Your task to perform on an android device: make emails show in primary in the gmail app Image 0: 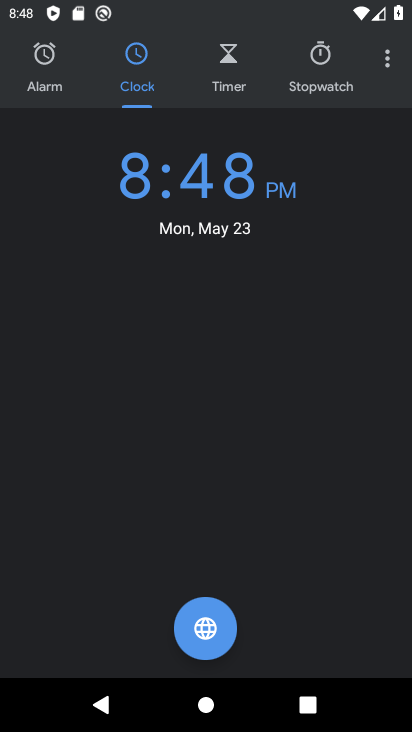
Step 0: press home button
Your task to perform on an android device: make emails show in primary in the gmail app Image 1: 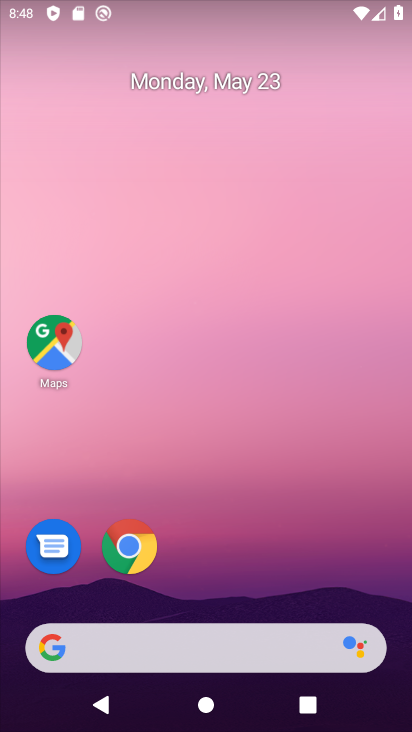
Step 1: drag from (369, 575) to (328, 219)
Your task to perform on an android device: make emails show in primary in the gmail app Image 2: 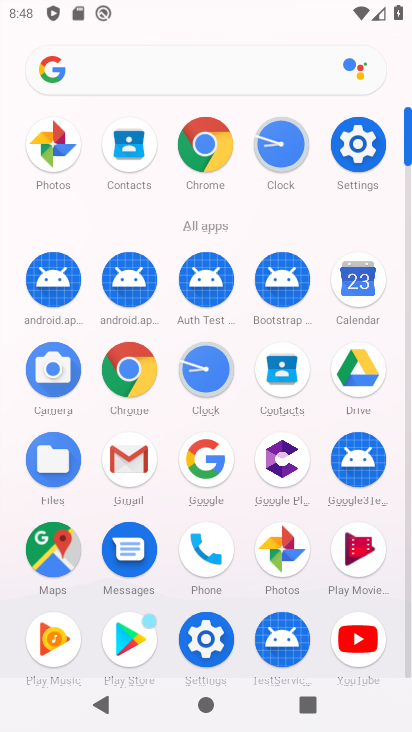
Step 2: click (210, 371)
Your task to perform on an android device: make emails show in primary in the gmail app Image 3: 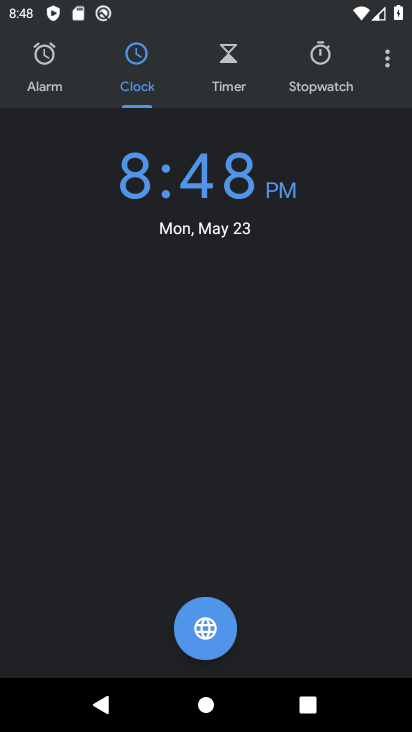
Step 3: press home button
Your task to perform on an android device: make emails show in primary in the gmail app Image 4: 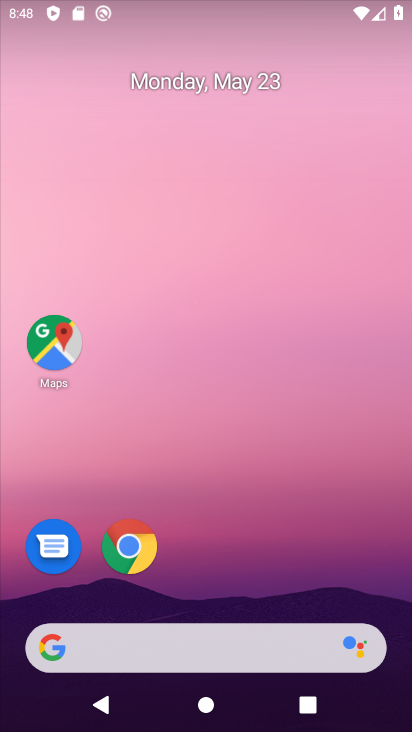
Step 4: drag from (354, 602) to (304, 235)
Your task to perform on an android device: make emails show in primary in the gmail app Image 5: 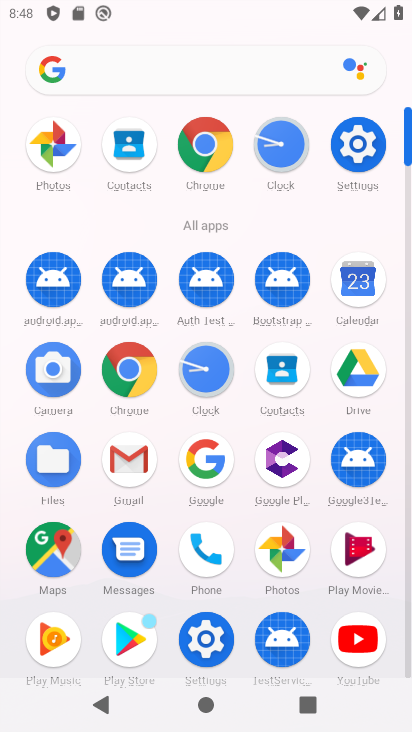
Step 5: click (135, 472)
Your task to perform on an android device: make emails show in primary in the gmail app Image 6: 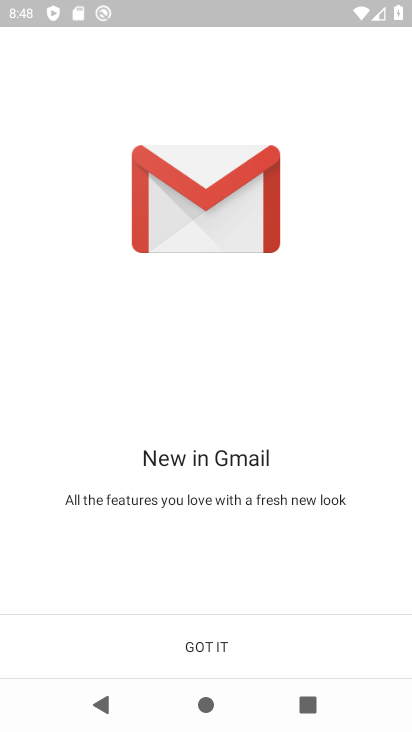
Step 6: click (352, 629)
Your task to perform on an android device: make emails show in primary in the gmail app Image 7: 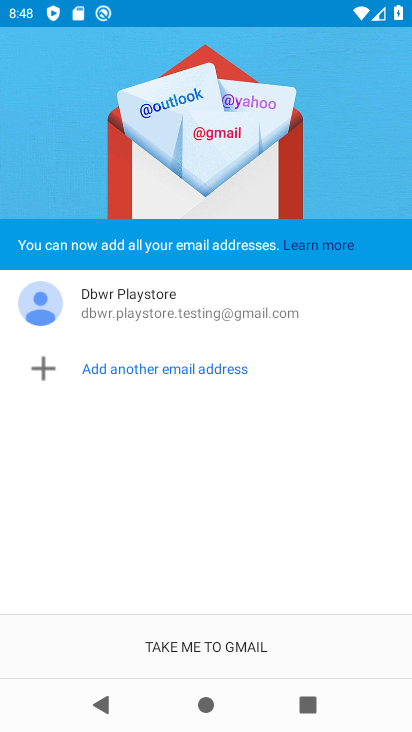
Step 7: click (346, 615)
Your task to perform on an android device: make emails show in primary in the gmail app Image 8: 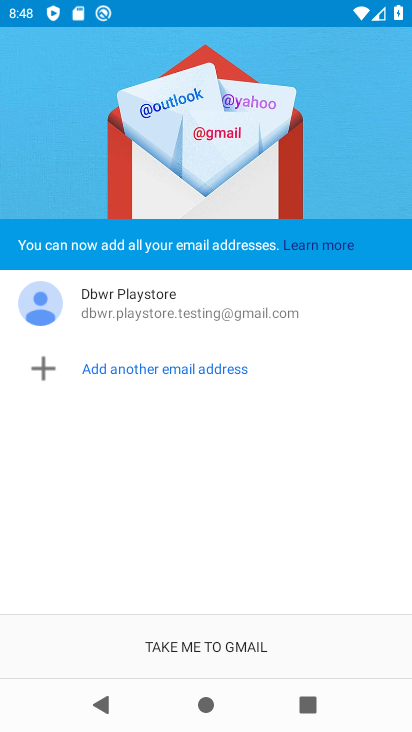
Step 8: click (270, 617)
Your task to perform on an android device: make emails show in primary in the gmail app Image 9: 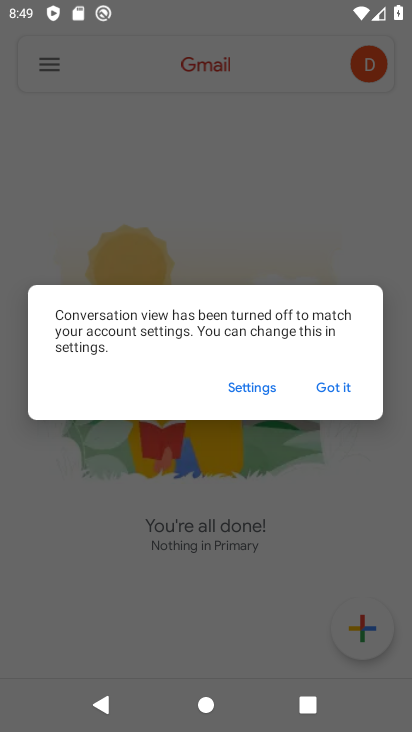
Step 9: click (330, 380)
Your task to perform on an android device: make emails show in primary in the gmail app Image 10: 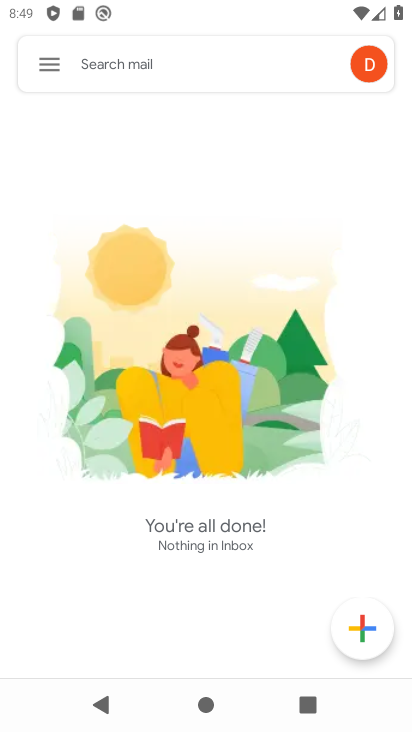
Step 10: click (41, 70)
Your task to perform on an android device: make emails show in primary in the gmail app Image 11: 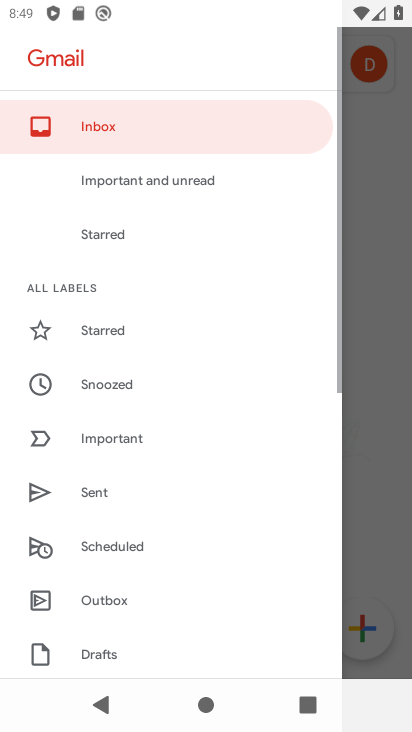
Step 11: drag from (177, 604) to (155, 146)
Your task to perform on an android device: make emails show in primary in the gmail app Image 12: 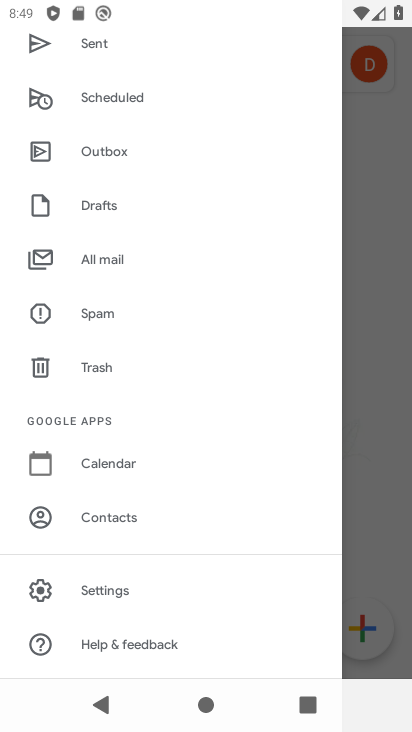
Step 12: drag from (203, 492) to (224, 216)
Your task to perform on an android device: make emails show in primary in the gmail app Image 13: 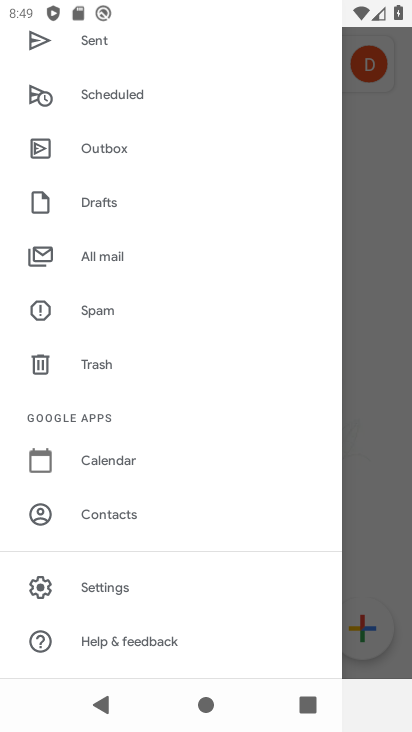
Step 13: click (28, 587)
Your task to perform on an android device: make emails show in primary in the gmail app Image 14: 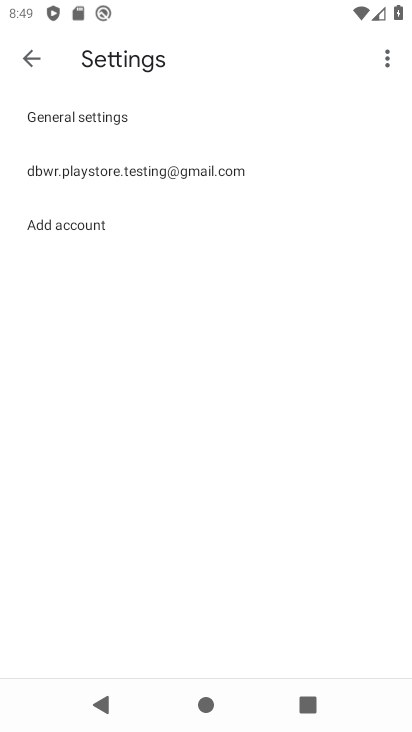
Step 14: click (77, 175)
Your task to perform on an android device: make emails show in primary in the gmail app Image 15: 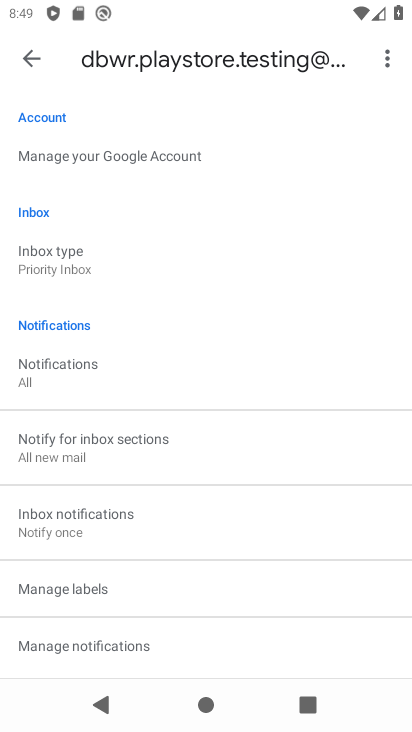
Step 15: click (96, 253)
Your task to perform on an android device: make emails show in primary in the gmail app Image 16: 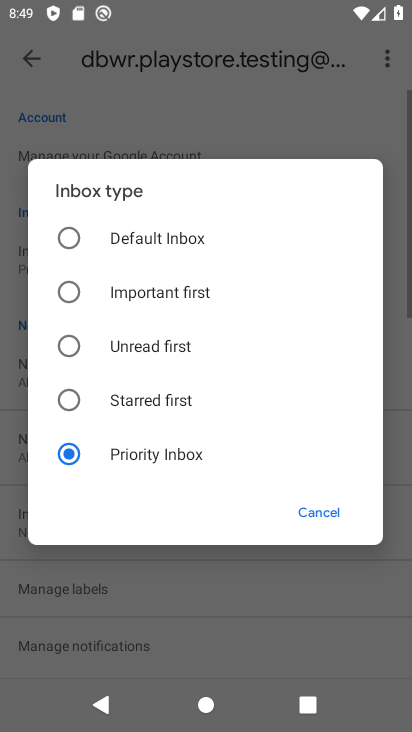
Step 16: click (103, 241)
Your task to perform on an android device: make emails show in primary in the gmail app Image 17: 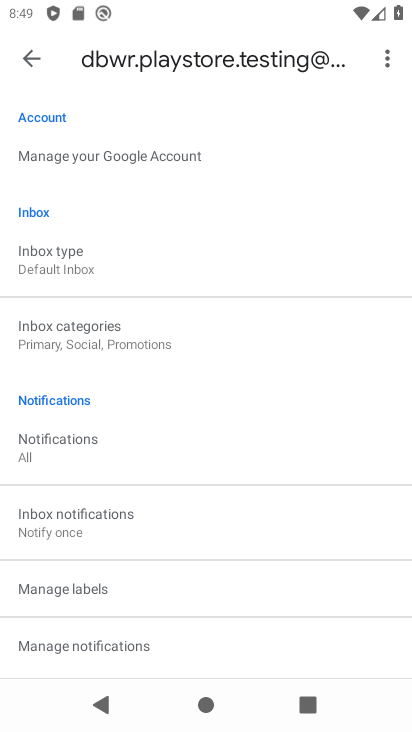
Step 17: click (66, 349)
Your task to perform on an android device: make emails show in primary in the gmail app Image 18: 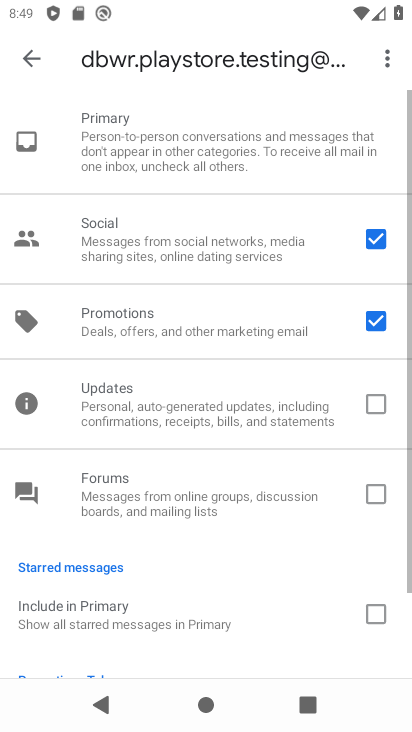
Step 18: task complete